Your task to perform on an android device: turn pop-ups off in chrome Image 0: 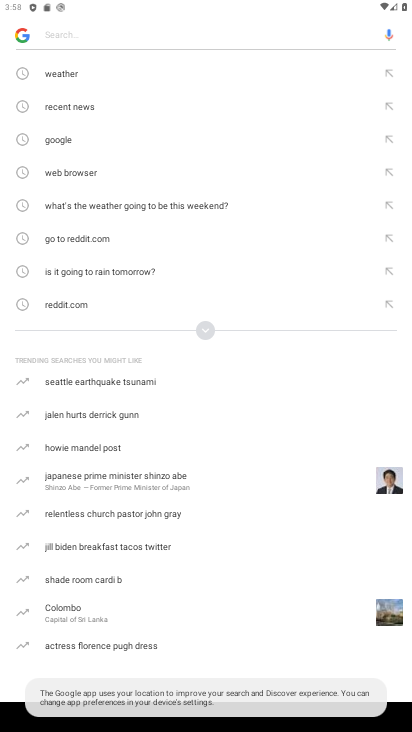
Step 0: press home button
Your task to perform on an android device: turn pop-ups off in chrome Image 1: 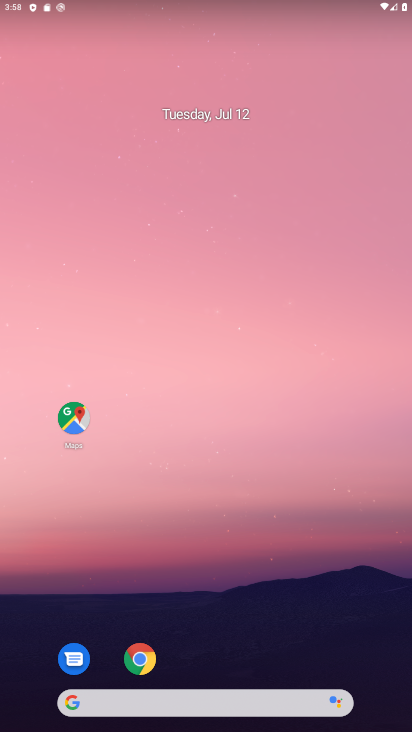
Step 1: click (142, 659)
Your task to perform on an android device: turn pop-ups off in chrome Image 2: 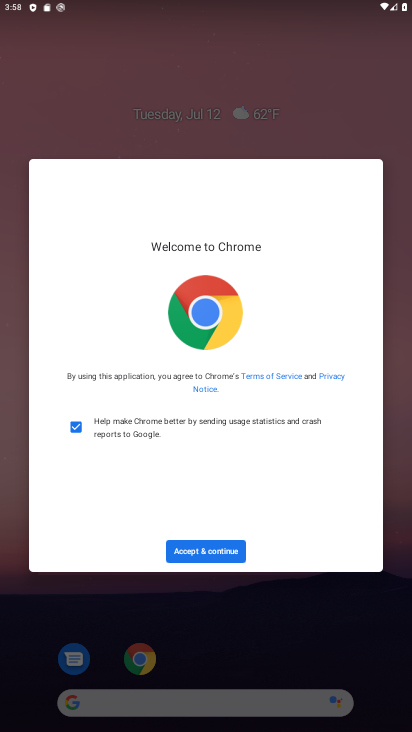
Step 2: click (202, 547)
Your task to perform on an android device: turn pop-ups off in chrome Image 3: 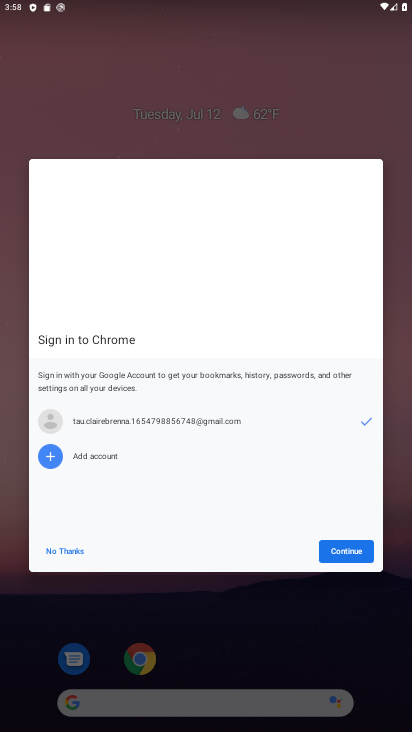
Step 3: click (342, 547)
Your task to perform on an android device: turn pop-ups off in chrome Image 4: 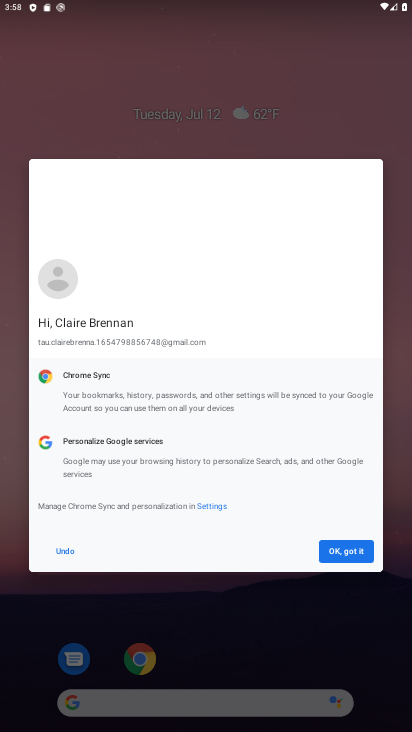
Step 4: click (342, 547)
Your task to perform on an android device: turn pop-ups off in chrome Image 5: 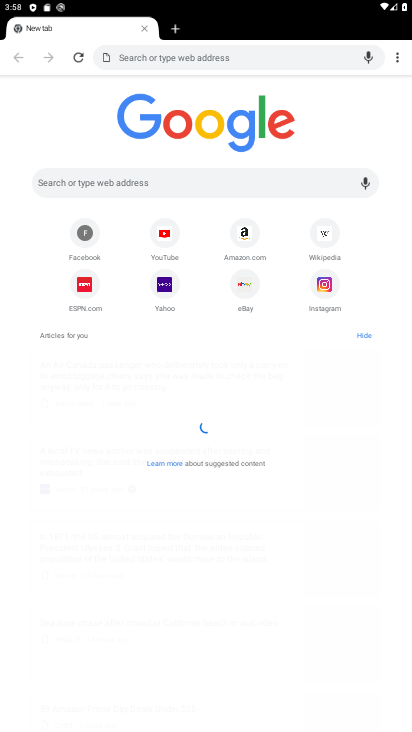
Step 5: click (392, 54)
Your task to perform on an android device: turn pop-ups off in chrome Image 6: 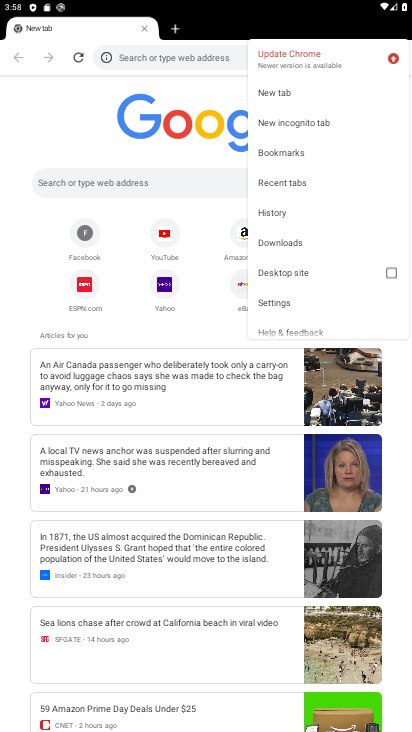
Step 6: click (281, 301)
Your task to perform on an android device: turn pop-ups off in chrome Image 7: 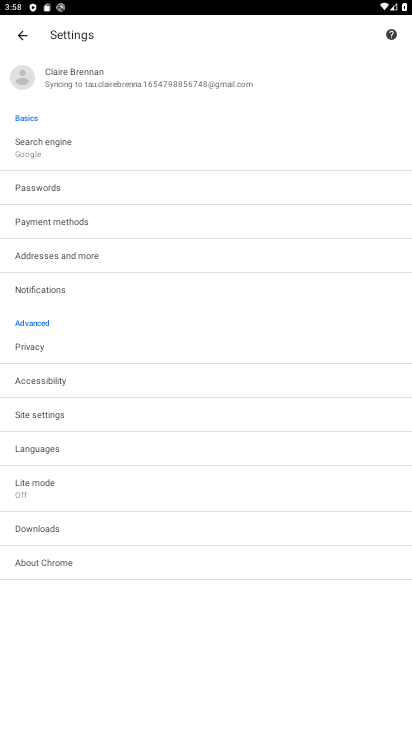
Step 7: click (81, 408)
Your task to perform on an android device: turn pop-ups off in chrome Image 8: 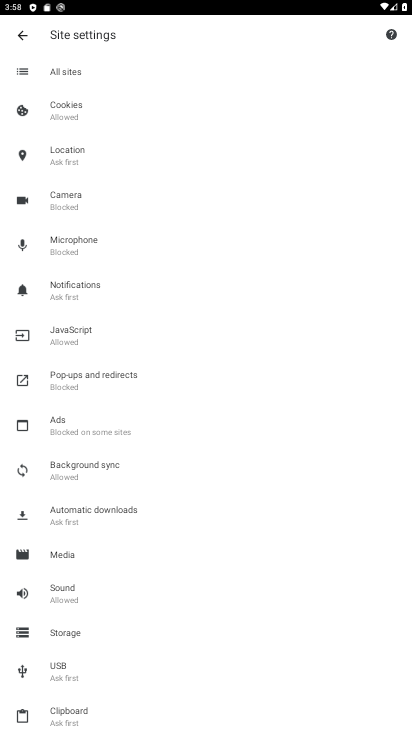
Step 8: click (93, 385)
Your task to perform on an android device: turn pop-ups off in chrome Image 9: 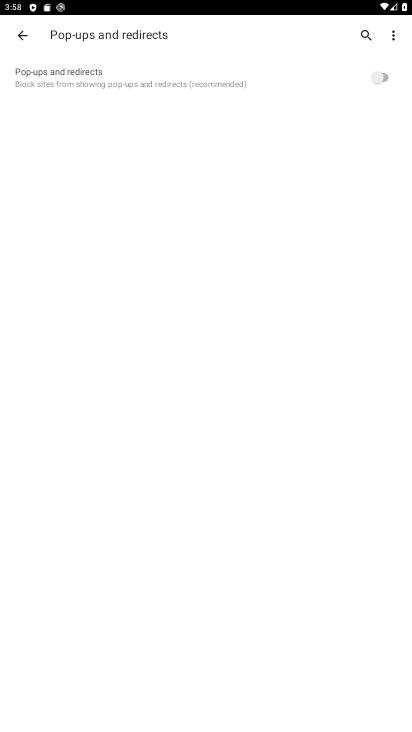
Step 9: task complete